Your task to perform on an android device: Open Chrome and go to the settings page Image 0: 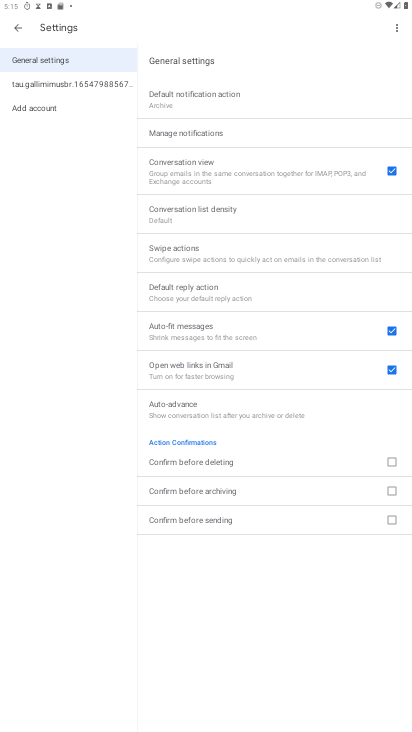
Step 0: press home button
Your task to perform on an android device: Open Chrome and go to the settings page Image 1: 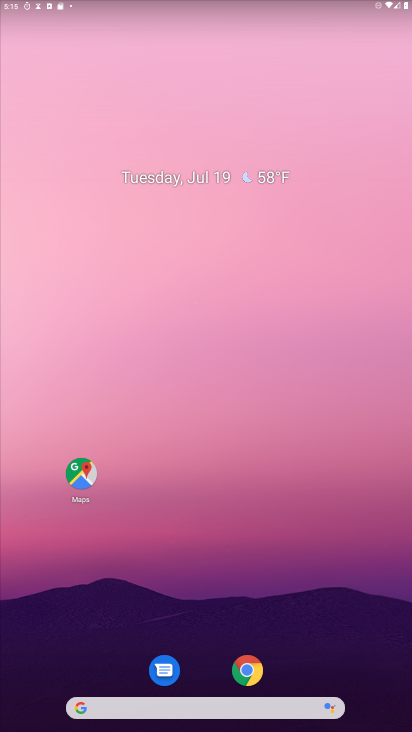
Step 1: drag from (277, 695) to (335, 16)
Your task to perform on an android device: Open Chrome and go to the settings page Image 2: 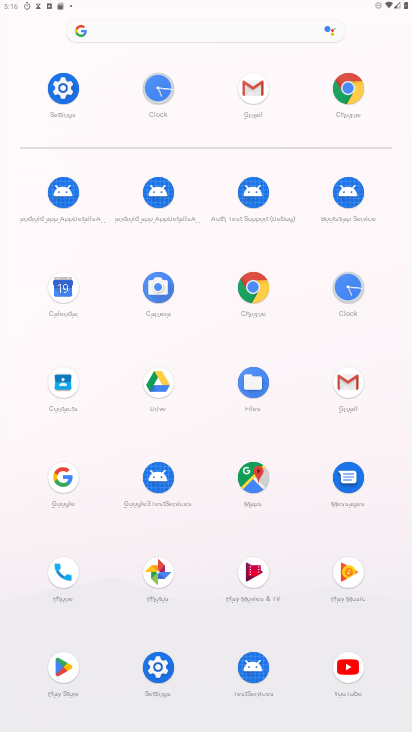
Step 2: click (249, 287)
Your task to perform on an android device: Open Chrome and go to the settings page Image 3: 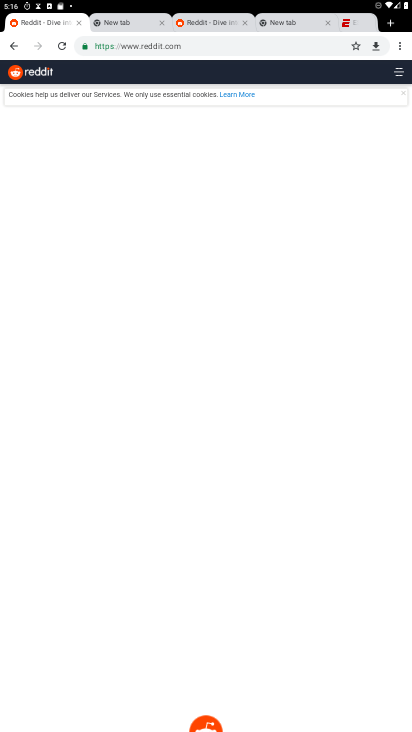
Step 3: task complete